Your task to perform on an android device: What's on my calendar tomorrow? Image 0: 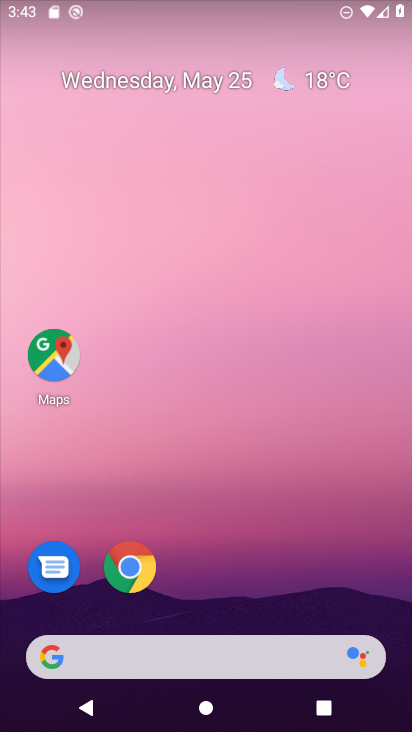
Step 0: drag from (342, 595) to (362, 278)
Your task to perform on an android device: What's on my calendar tomorrow? Image 1: 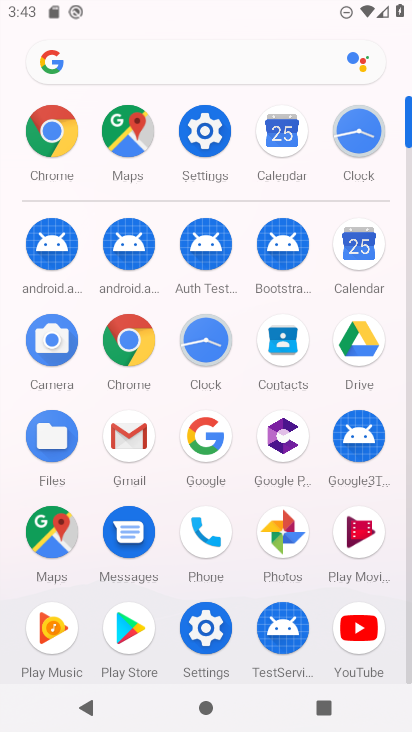
Step 1: click (356, 269)
Your task to perform on an android device: What's on my calendar tomorrow? Image 2: 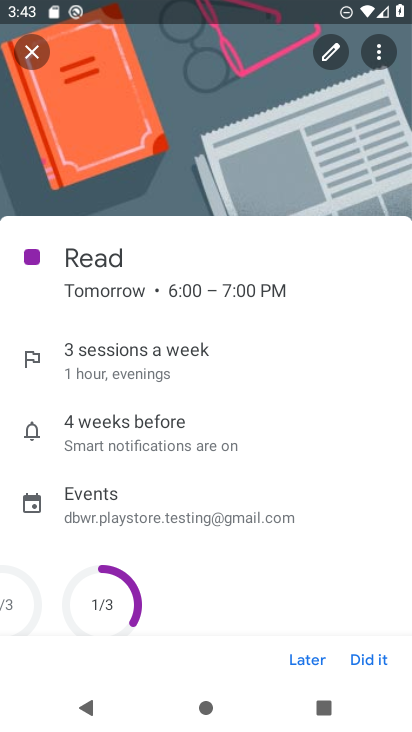
Step 2: task complete